Your task to perform on an android device: Open eBay Image 0: 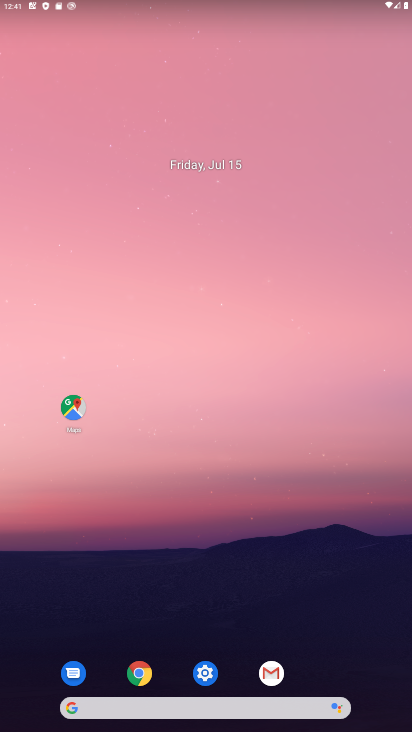
Step 0: click (147, 677)
Your task to perform on an android device: Open eBay Image 1: 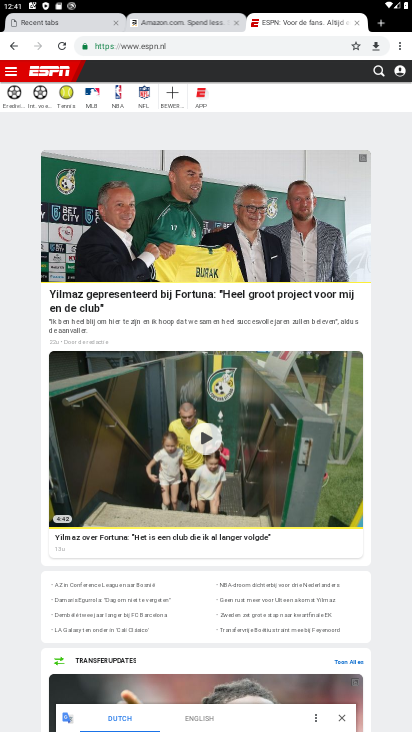
Step 1: click (378, 25)
Your task to perform on an android device: Open eBay Image 2: 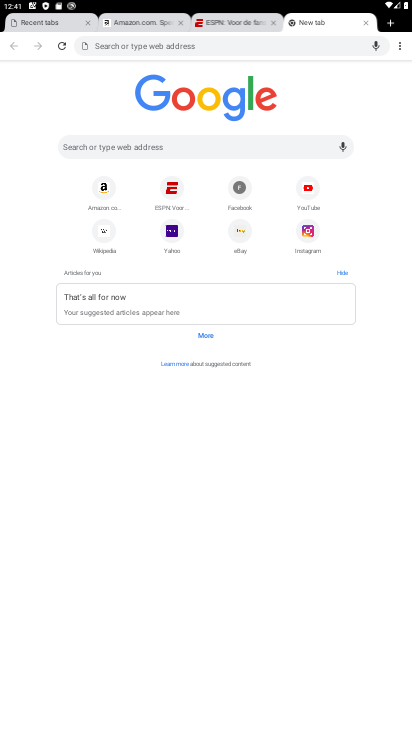
Step 2: click (239, 237)
Your task to perform on an android device: Open eBay Image 3: 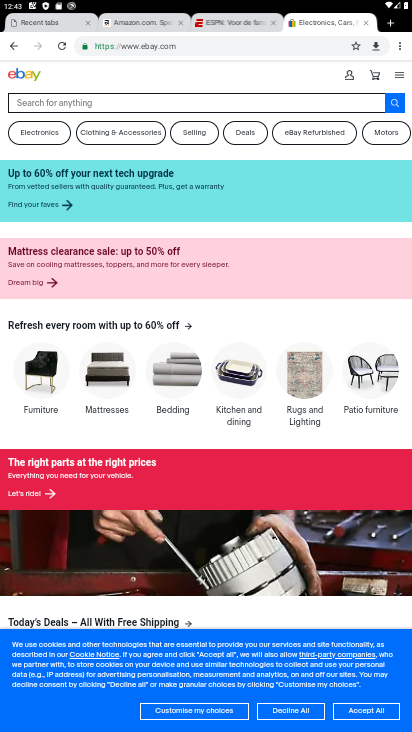
Step 3: task complete